Your task to perform on an android device: change the clock display to digital Image 0: 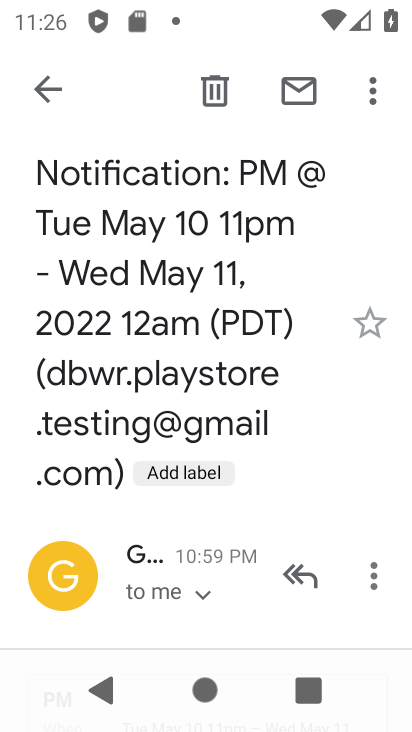
Step 0: press home button
Your task to perform on an android device: change the clock display to digital Image 1: 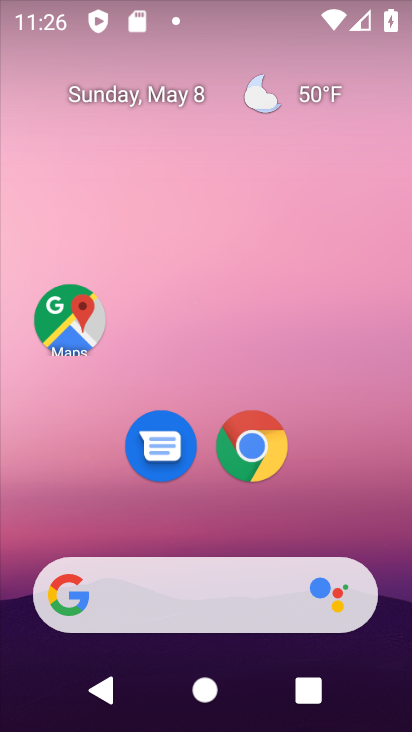
Step 1: drag from (314, 530) to (280, 62)
Your task to perform on an android device: change the clock display to digital Image 2: 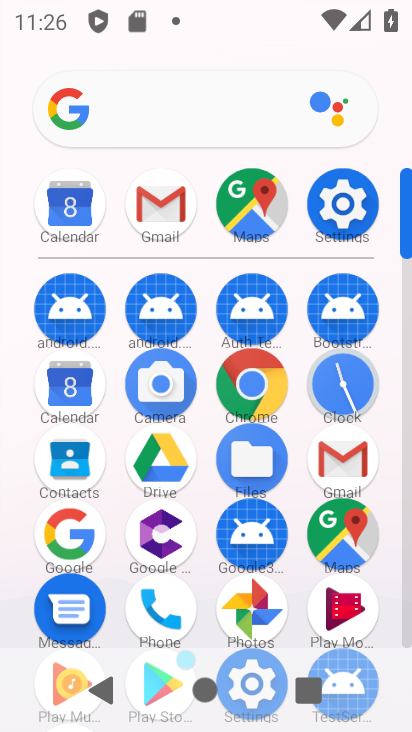
Step 2: click (334, 391)
Your task to perform on an android device: change the clock display to digital Image 3: 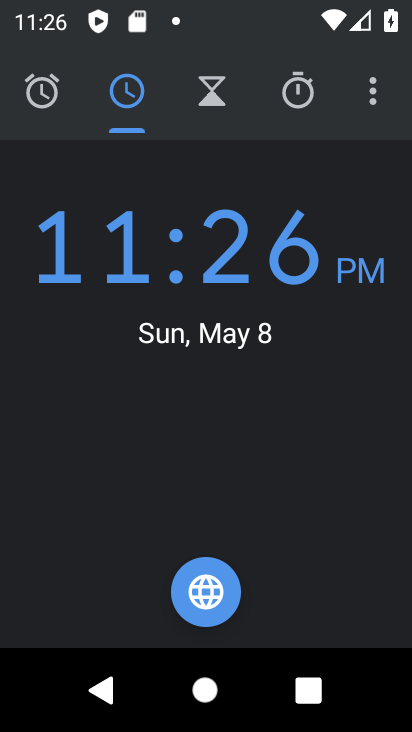
Step 3: click (371, 84)
Your task to perform on an android device: change the clock display to digital Image 4: 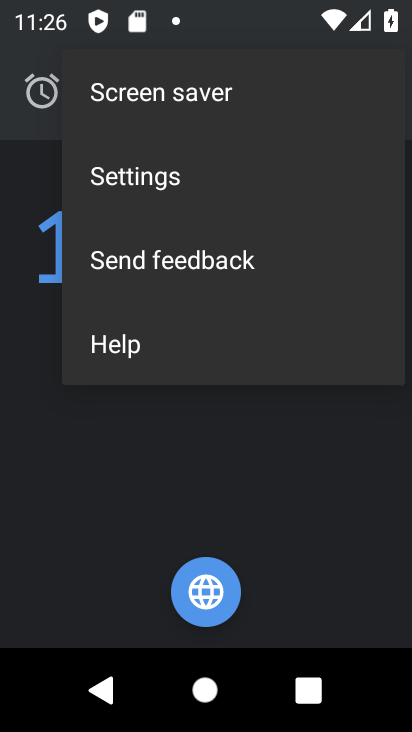
Step 4: click (248, 185)
Your task to perform on an android device: change the clock display to digital Image 5: 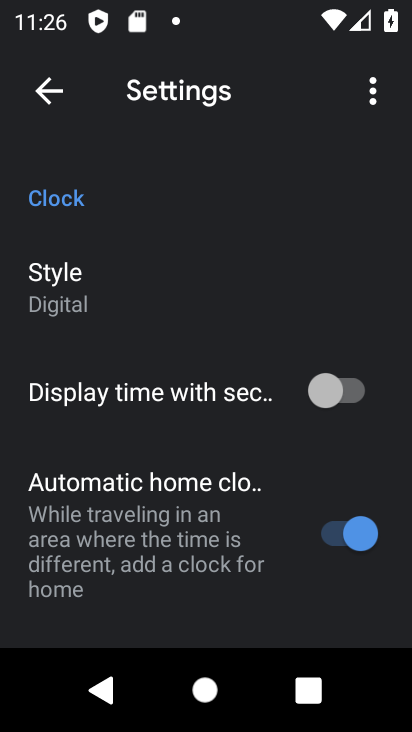
Step 5: click (138, 288)
Your task to perform on an android device: change the clock display to digital Image 6: 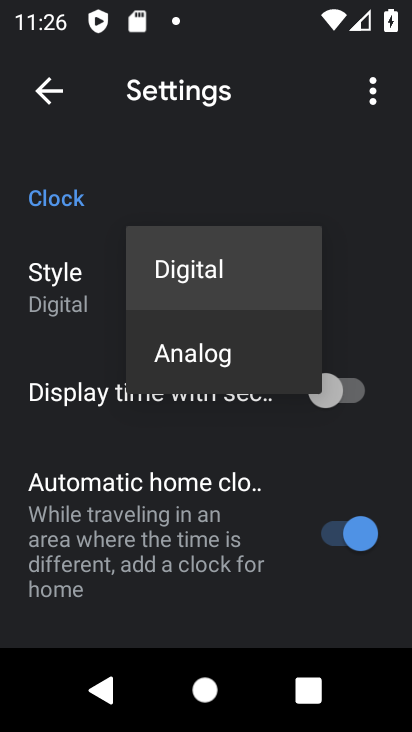
Step 6: click (189, 267)
Your task to perform on an android device: change the clock display to digital Image 7: 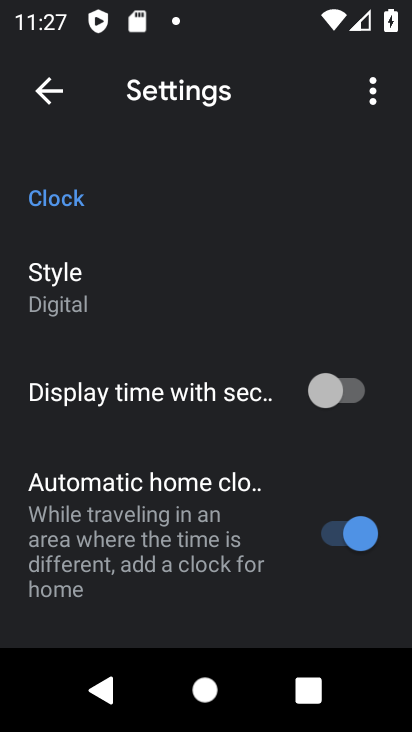
Step 7: task complete